Your task to perform on an android device: stop showing notifications on the lock screen Image 0: 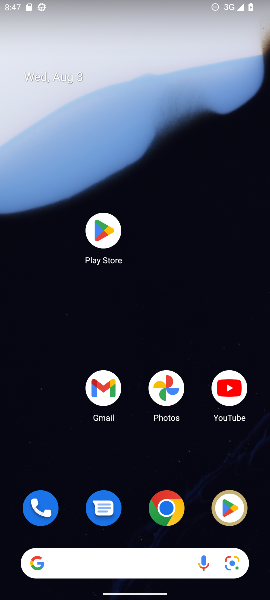
Step 0: drag from (119, 533) to (142, 2)
Your task to perform on an android device: stop showing notifications on the lock screen Image 1: 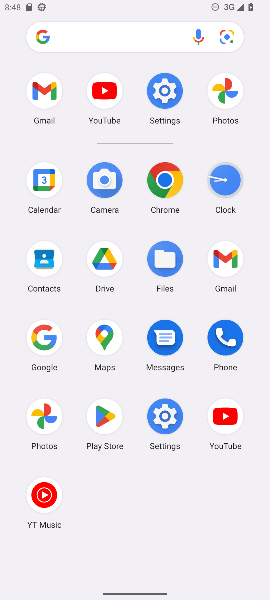
Step 1: click (173, 417)
Your task to perform on an android device: stop showing notifications on the lock screen Image 2: 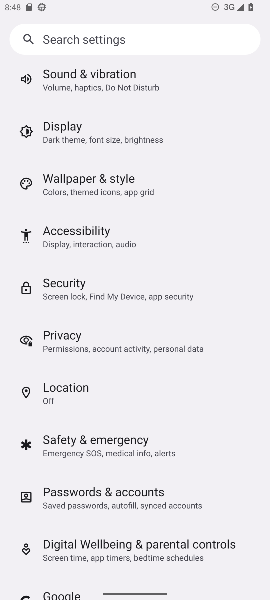
Step 2: drag from (116, 436) to (118, 110)
Your task to perform on an android device: stop showing notifications on the lock screen Image 3: 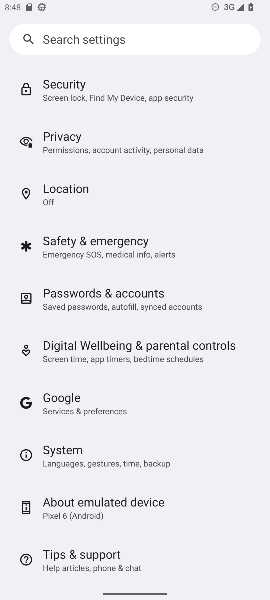
Step 3: drag from (135, 256) to (110, 596)
Your task to perform on an android device: stop showing notifications on the lock screen Image 4: 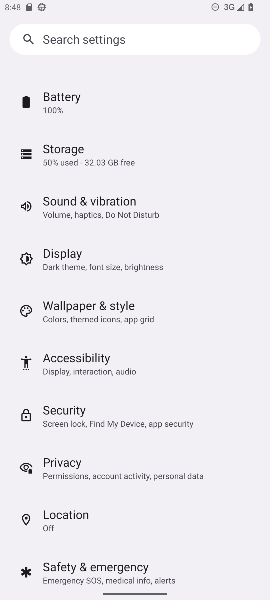
Step 4: drag from (128, 521) to (161, 584)
Your task to perform on an android device: stop showing notifications on the lock screen Image 5: 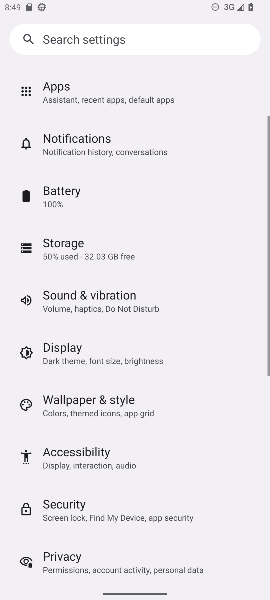
Step 5: click (96, 156)
Your task to perform on an android device: stop showing notifications on the lock screen Image 6: 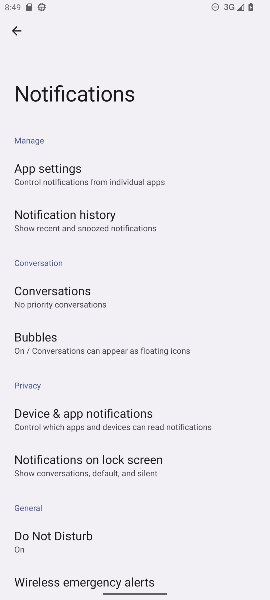
Step 6: click (95, 468)
Your task to perform on an android device: stop showing notifications on the lock screen Image 7: 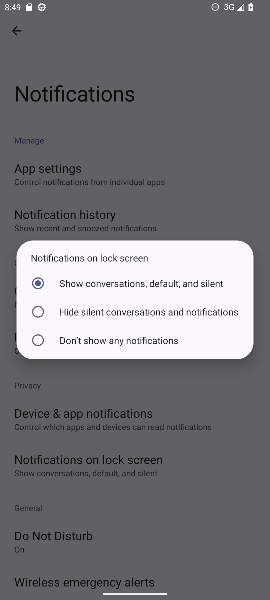
Step 7: click (85, 338)
Your task to perform on an android device: stop showing notifications on the lock screen Image 8: 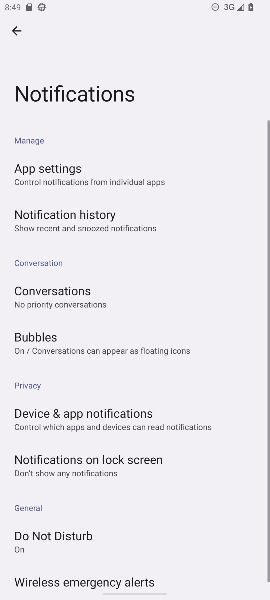
Step 8: task complete